Your task to perform on an android device: toggle airplane mode Image 0: 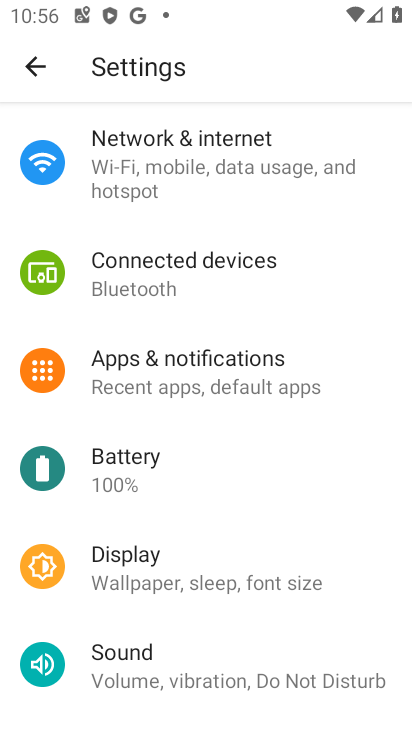
Step 0: click (198, 148)
Your task to perform on an android device: toggle airplane mode Image 1: 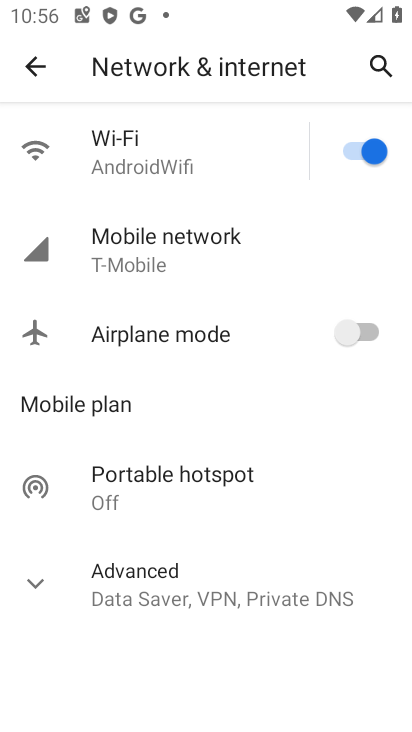
Step 1: click (358, 327)
Your task to perform on an android device: toggle airplane mode Image 2: 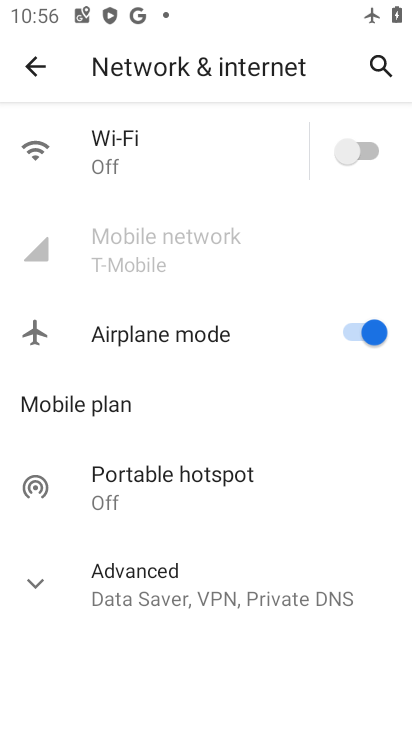
Step 2: task complete